Your task to perform on an android device: open app "Google Drive" Image 0: 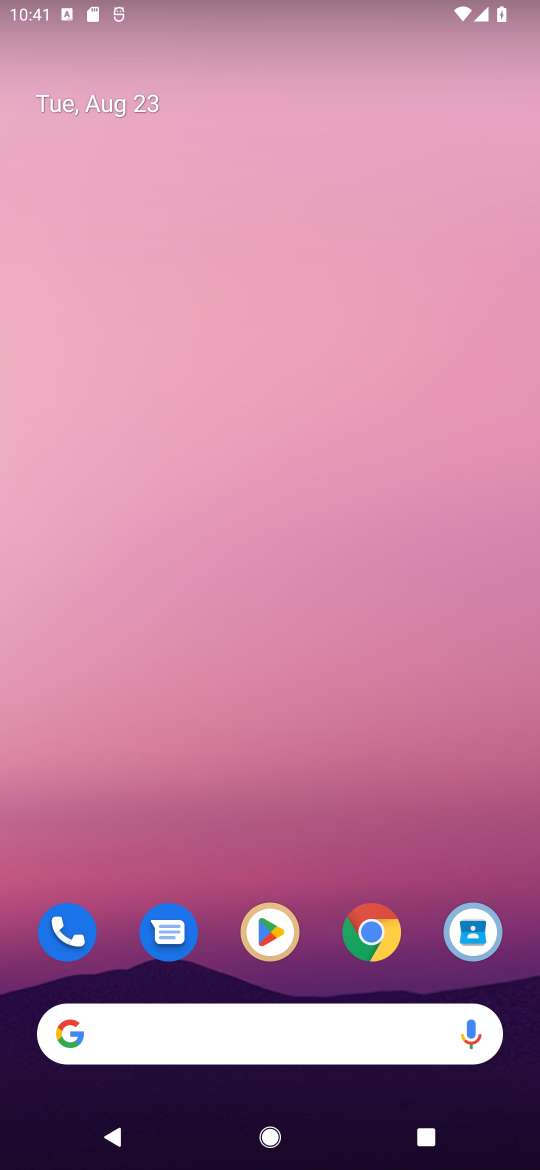
Step 0: click (281, 945)
Your task to perform on an android device: open app "Google Drive" Image 1: 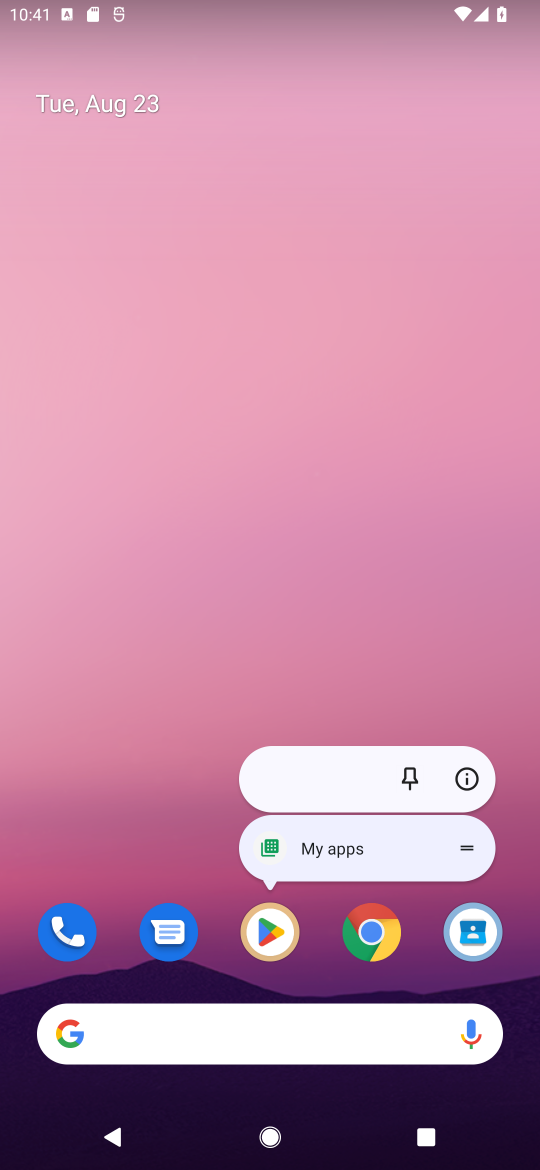
Step 1: click (262, 928)
Your task to perform on an android device: open app "Google Drive" Image 2: 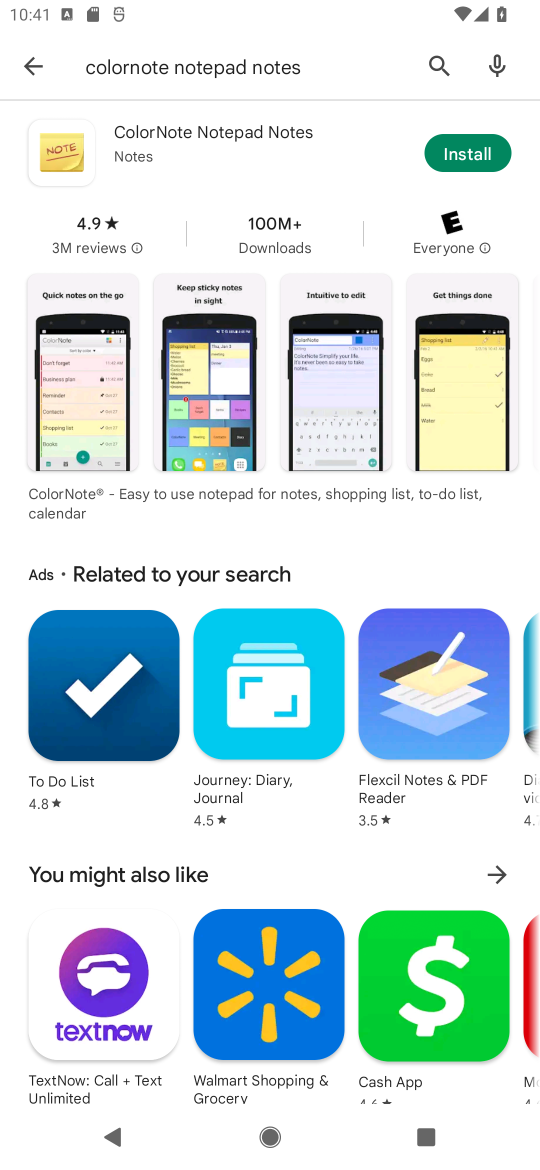
Step 2: click (429, 50)
Your task to perform on an android device: open app "Google Drive" Image 3: 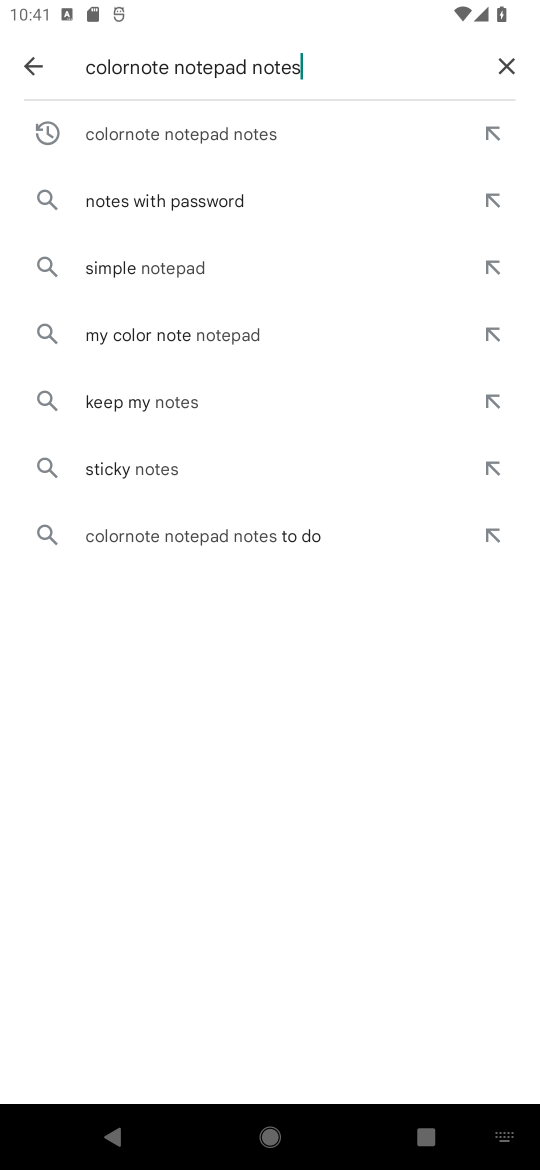
Step 3: click (500, 48)
Your task to perform on an android device: open app "Google Drive" Image 4: 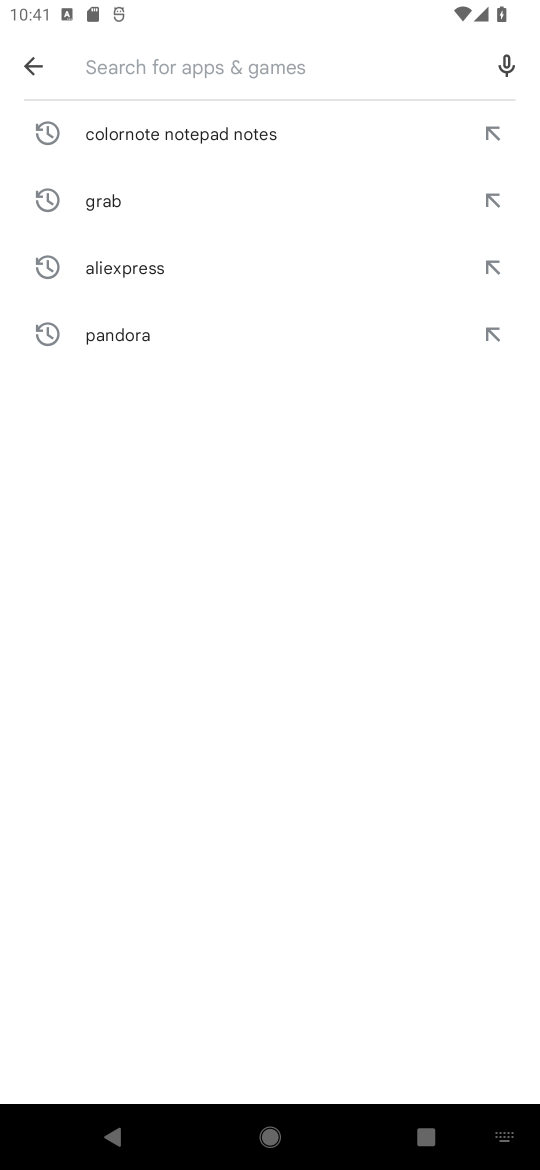
Step 4: click (192, 54)
Your task to perform on an android device: open app "Google Drive" Image 5: 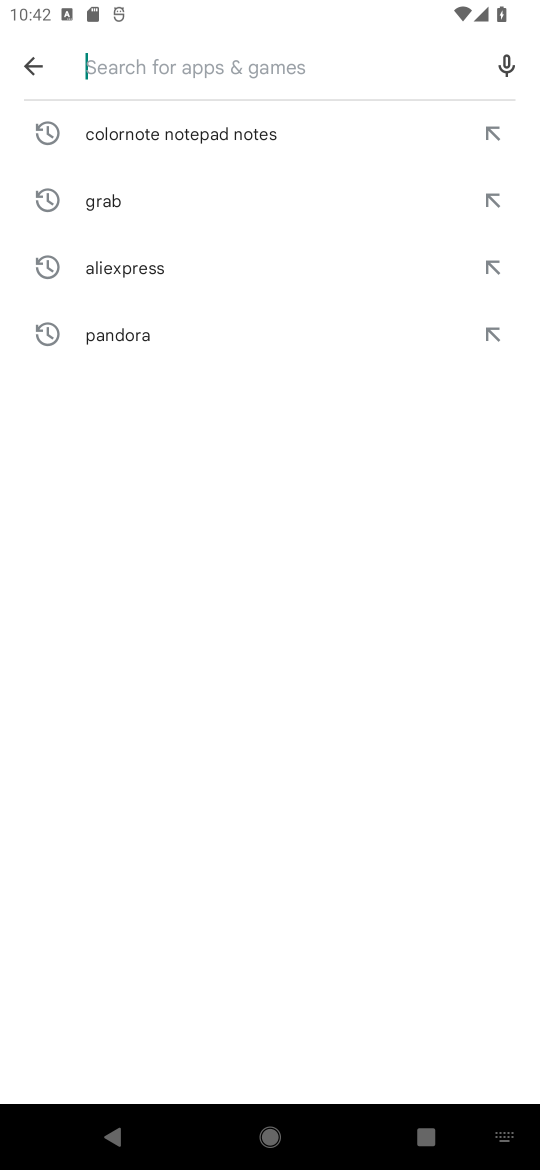
Step 5: type "Google Drive"
Your task to perform on an android device: open app "Google Drive" Image 6: 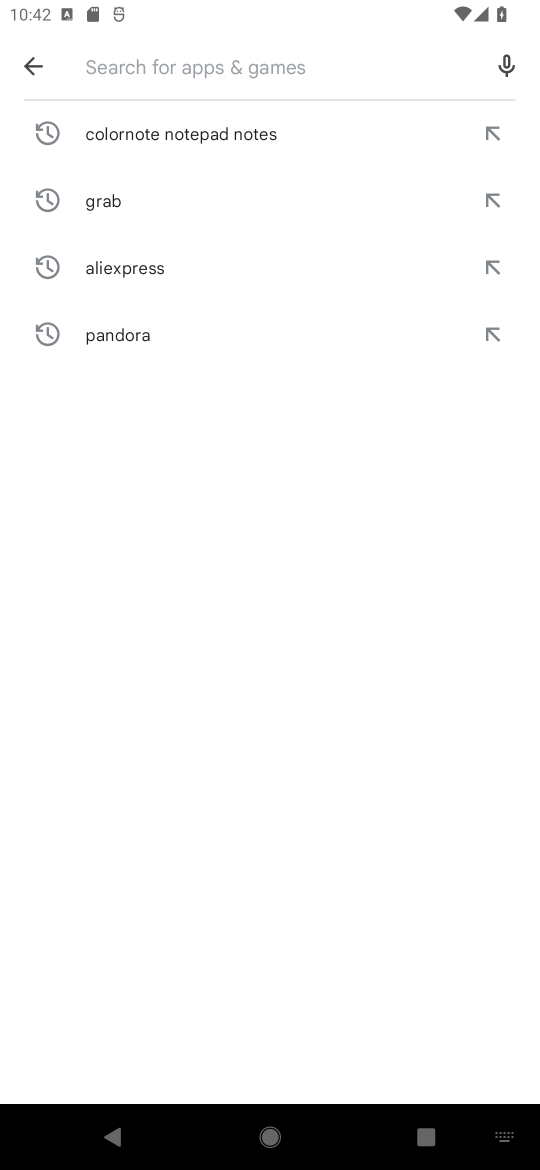
Step 6: click (311, 621)
Your task to perform on an android device: open app "Google Drive" Image 7: 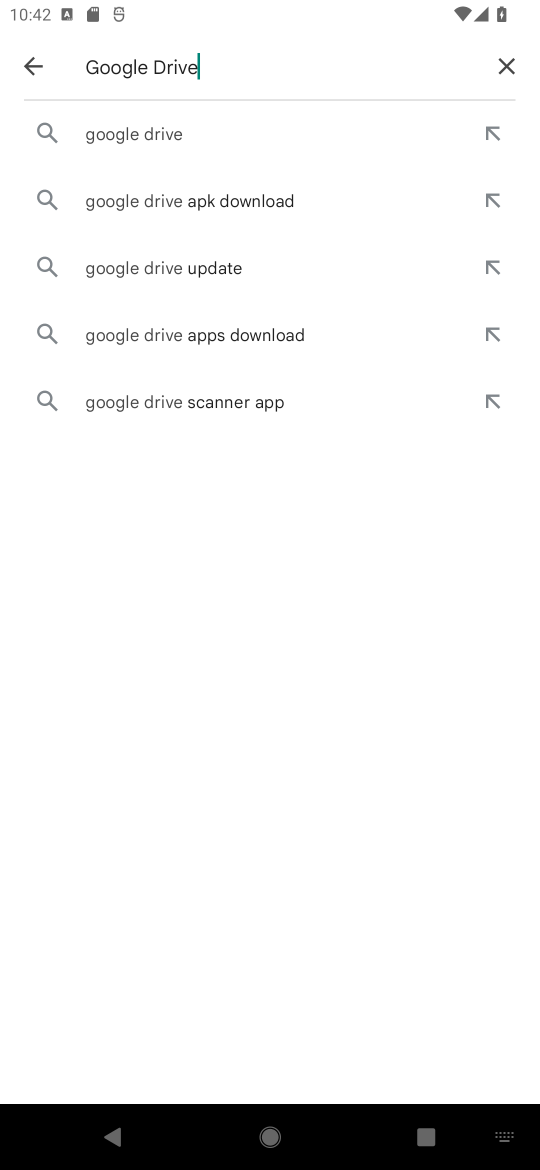
Step 7: click (170, 128)
Your task to perform on an android device: open app "Google Drive" Image 8: 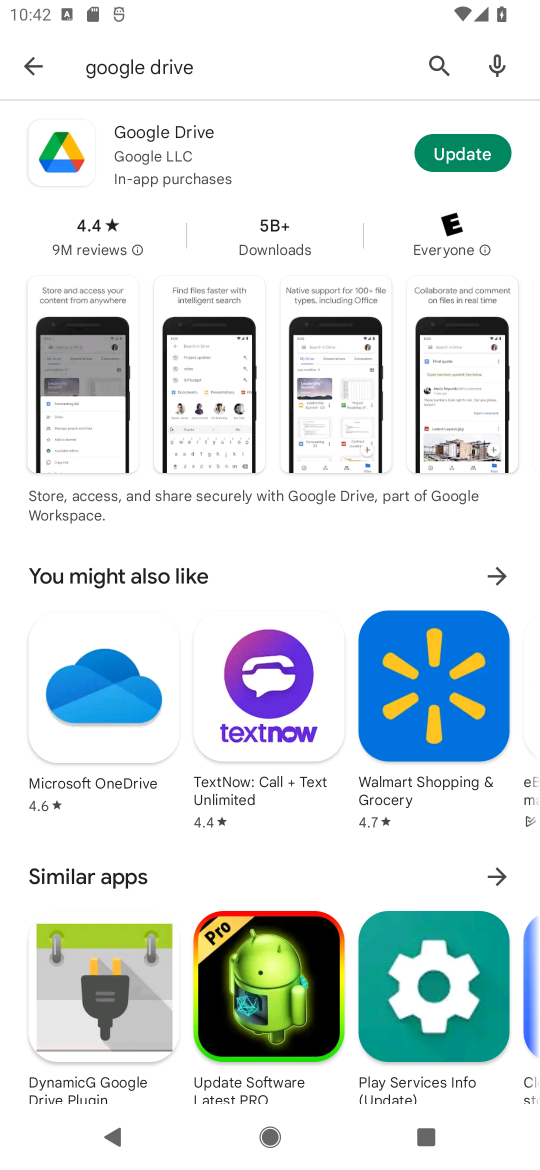
Step 8: click (284, 152)
Your task to perform on an android device: open app "Google Drive" Image 9: 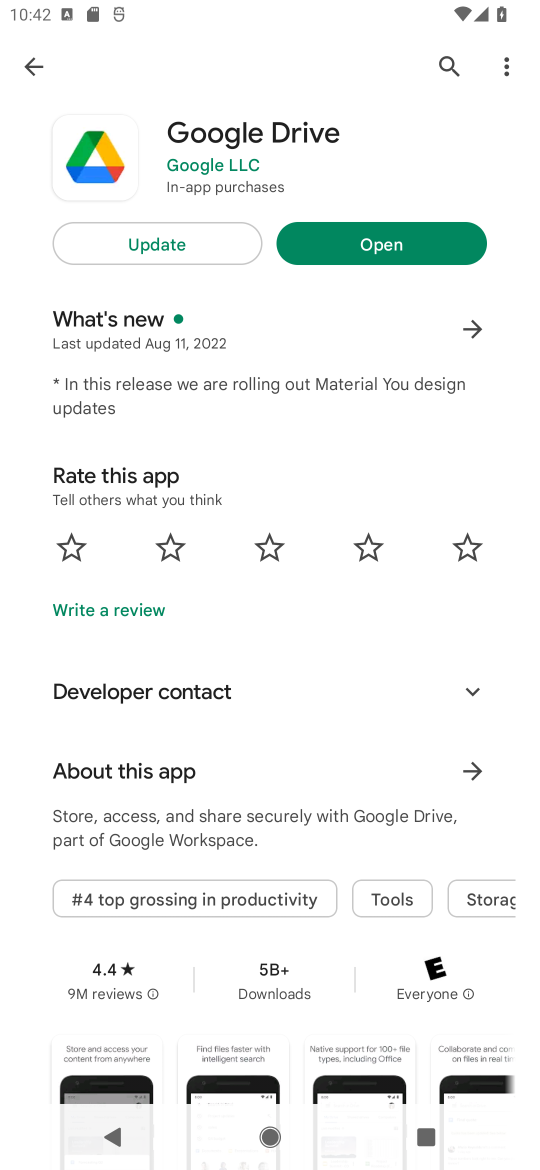
Step 9: click (429, 249)
Your task to perform on an android device: open app "Google Drive" Image 10: 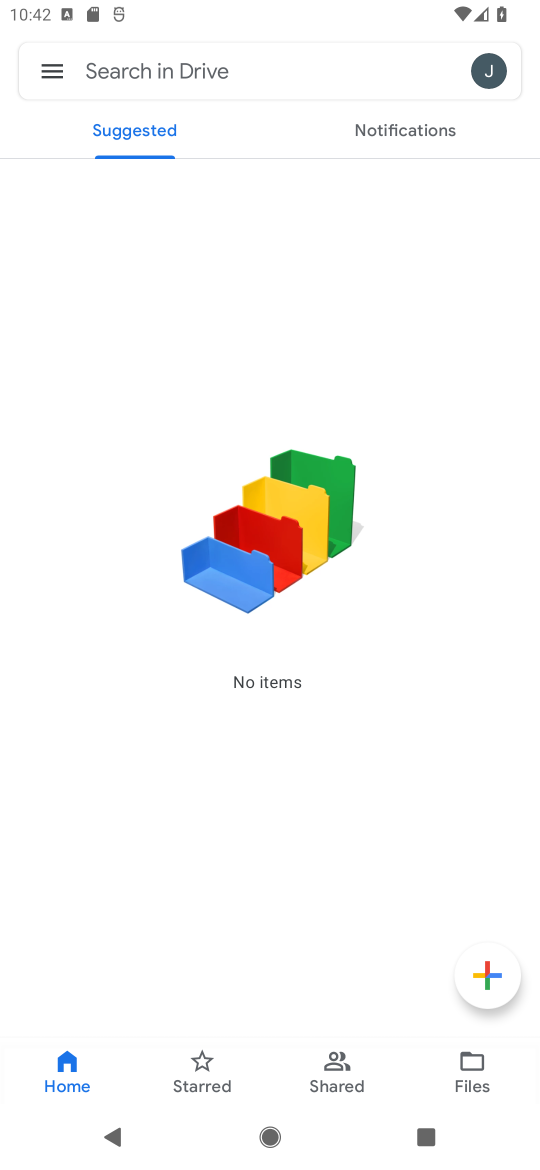
Step 10: task complete